Your task to perform on an android device: open app "Adobe Acrobat Reader" Image 0: 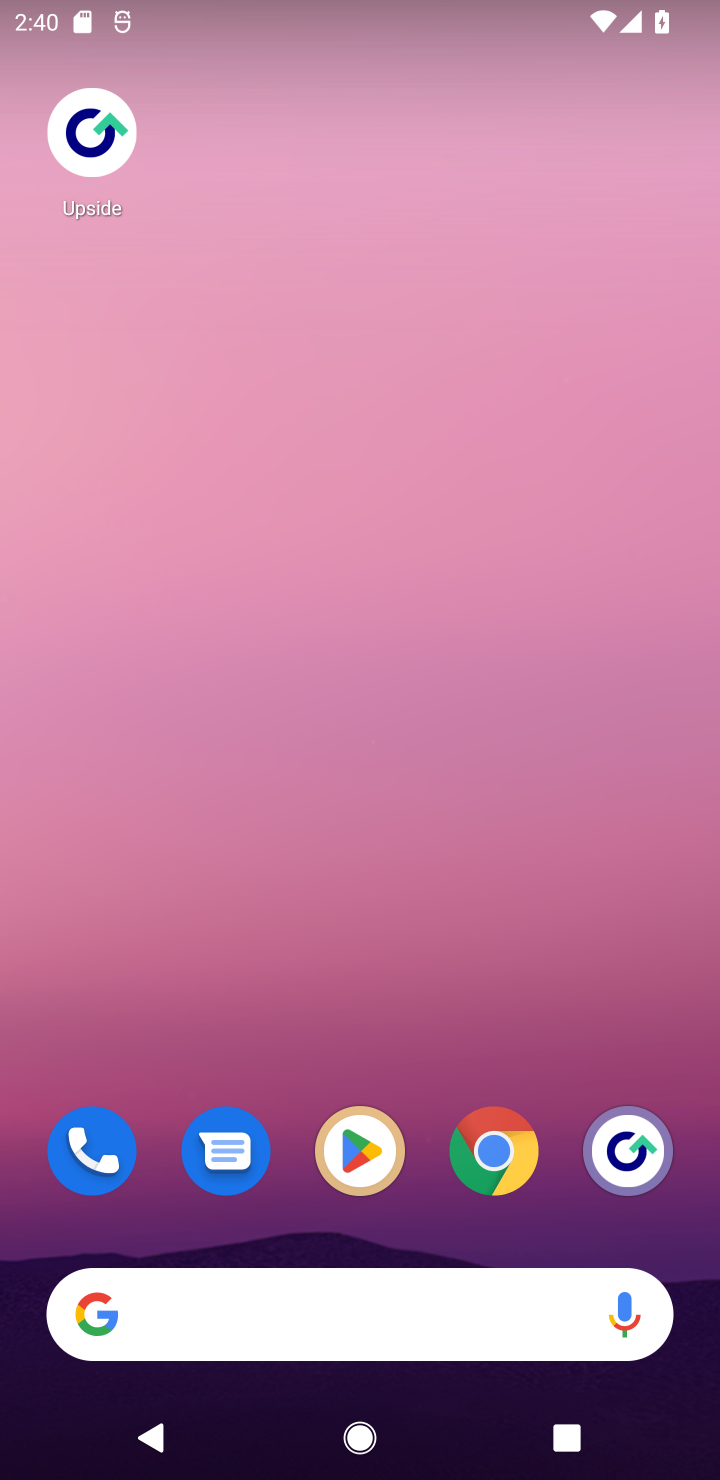
Step 0: click (384, 1191)
Your task to perform on an android device: open app "Adobe Acrobat Reader" Image 1: 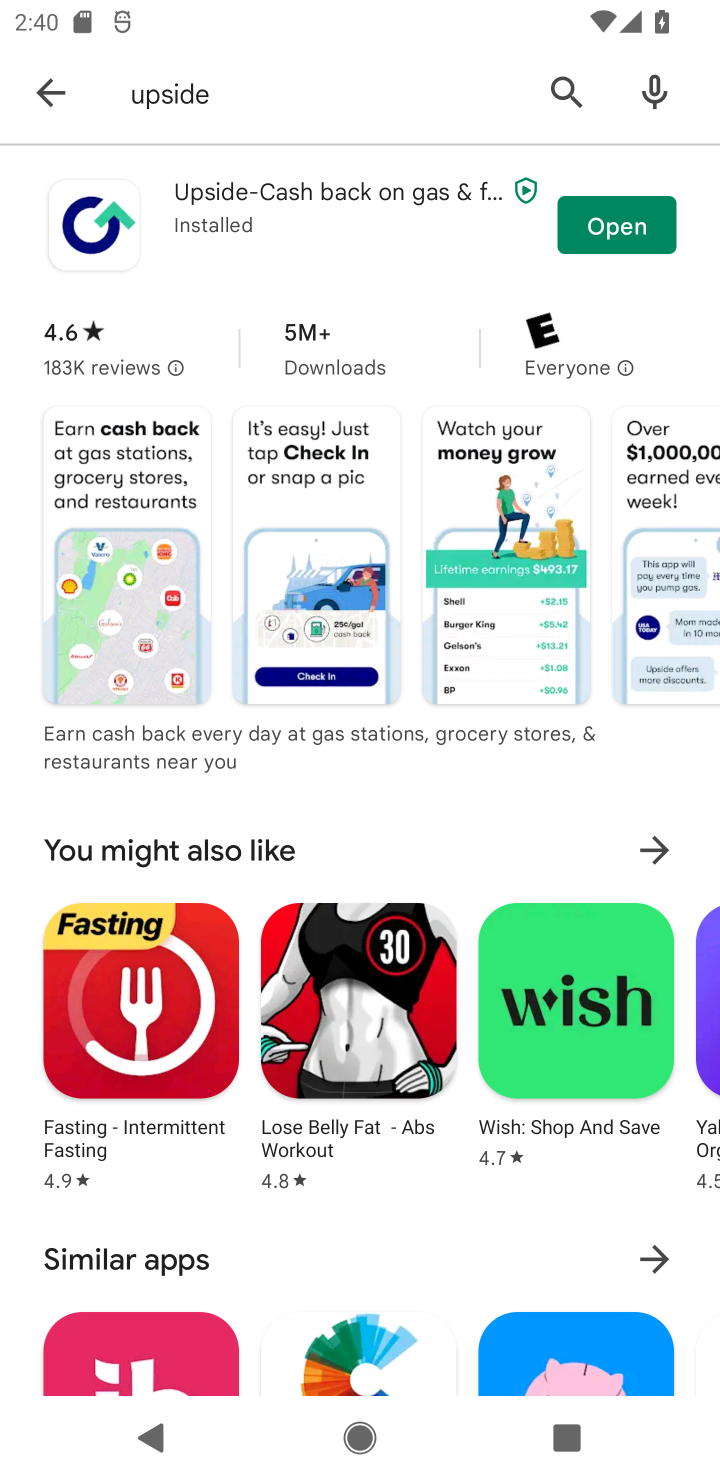
Step 1: click (554, 108)
Your task to perform on an android device: open app "Adobe Acrobat Reader" Image 2: 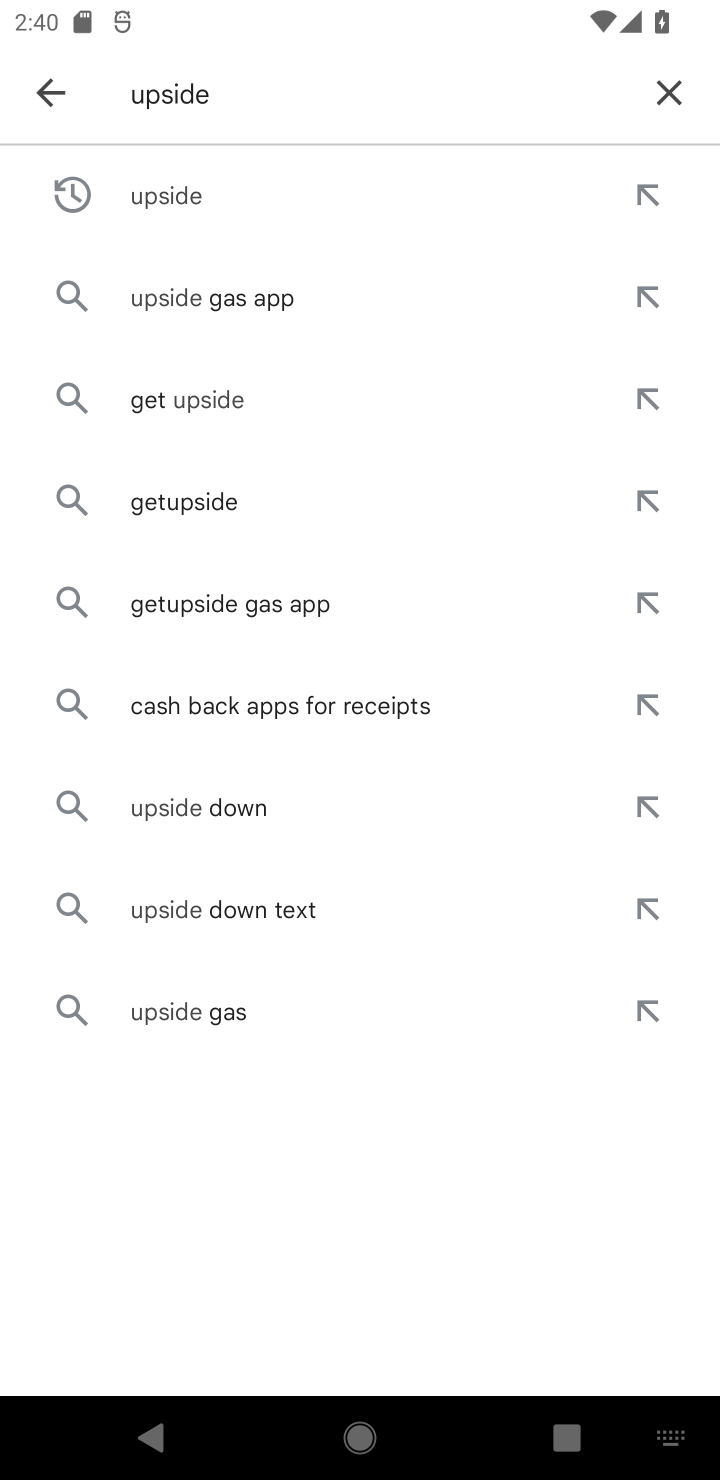
Step 2: click (644, 108)
Your task to perform on an android device: open app "Adobe Acrobat Reader" Image 3: 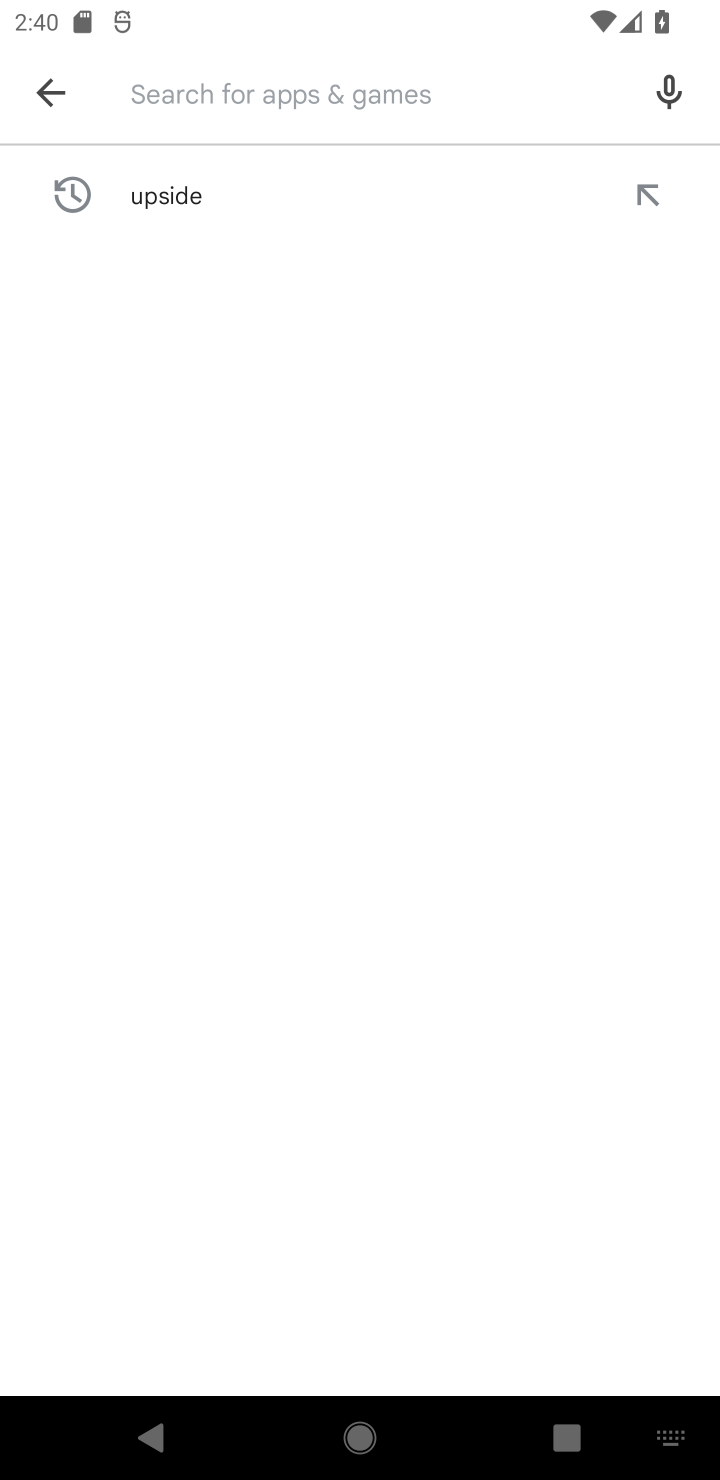
Step 3: type "adobe"
Your task to perform on an android device: open app "Adobe Acrobat Reader" Image 4: 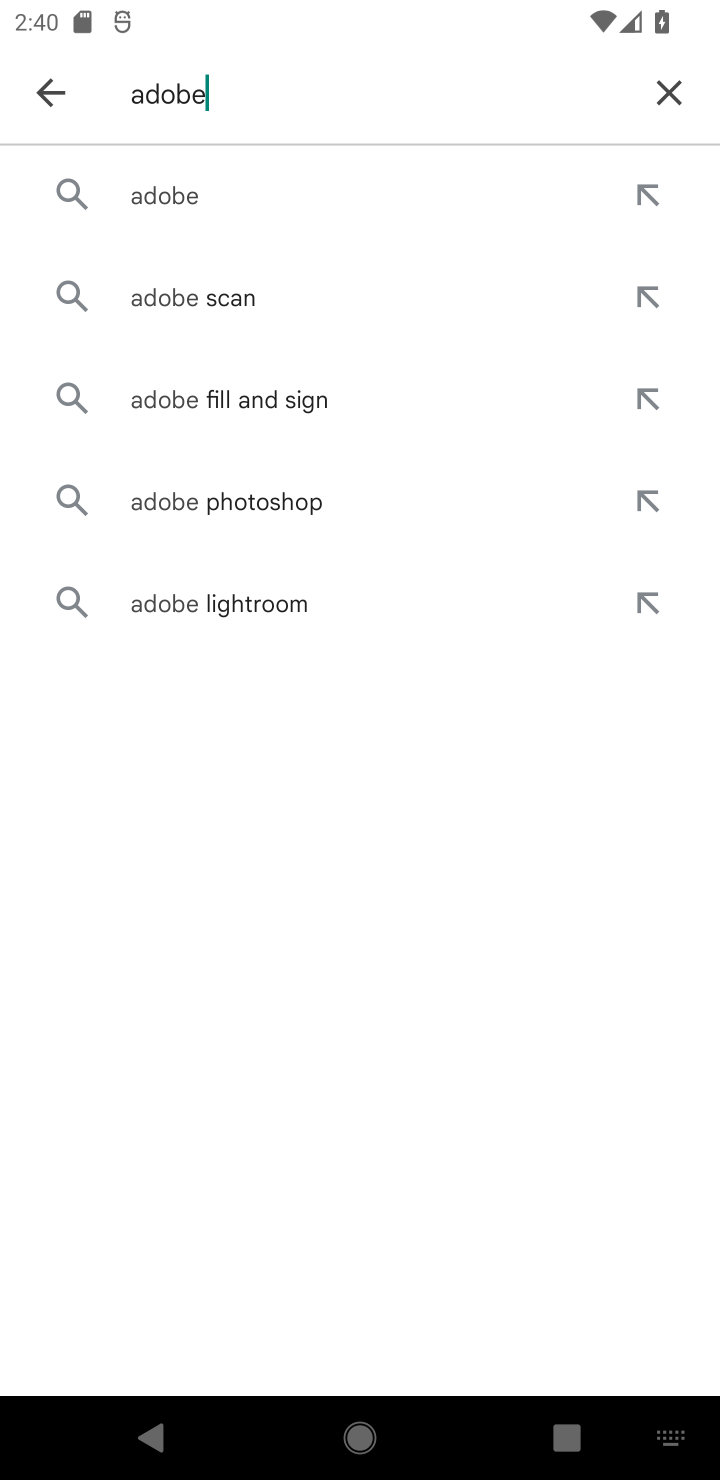
Step 4: click (266, 216)
Your task to perform on an android device: open app "Adobe Acrobat Reader" Image 5: 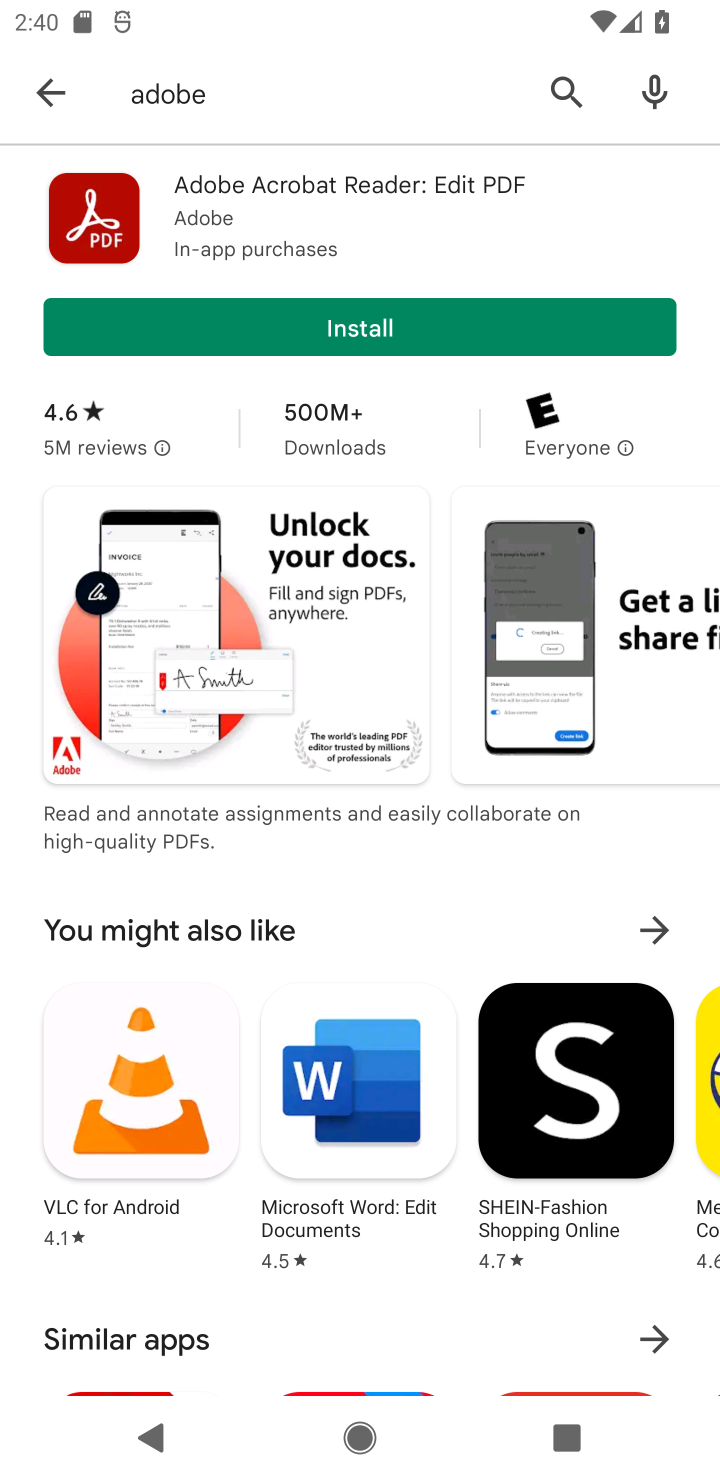
Step 5: click (530, 334)
Your task to perform on an android device: open app "Adobe Acrobat Reader" Image 6: 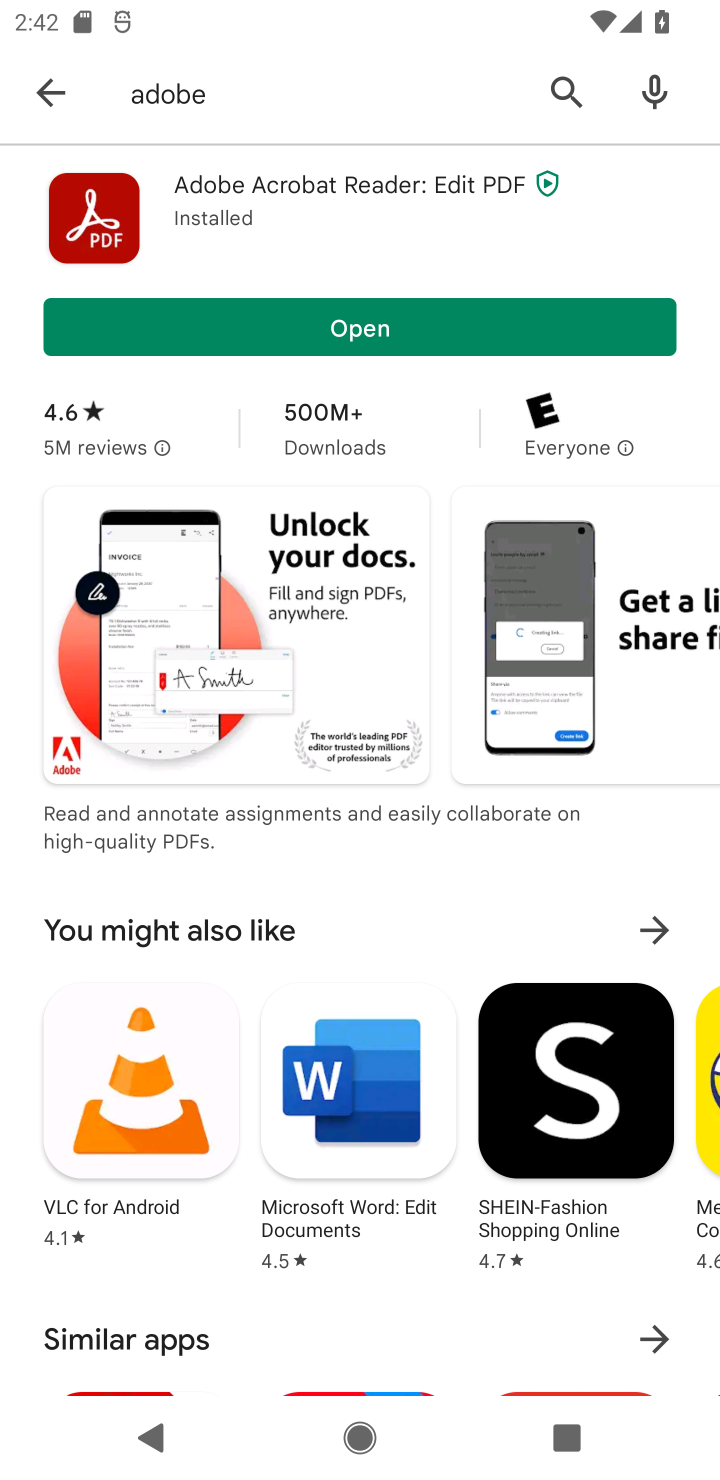
Step 6: click (530, 334)
Your task to perform on an android device: open app "Adobe Acrobat Reader" Image 7: 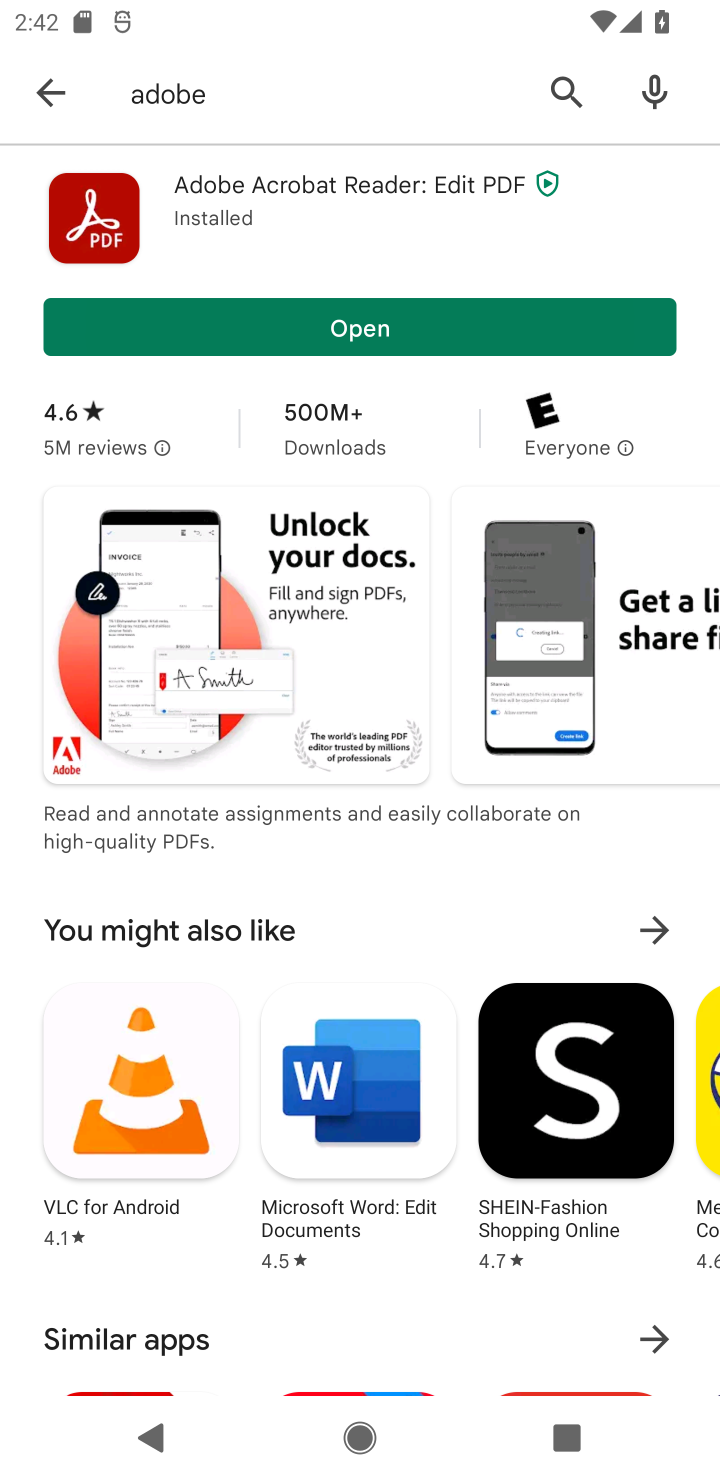
Step 7: task complete